Your task to perform on an android device: Go to settings Image 0: 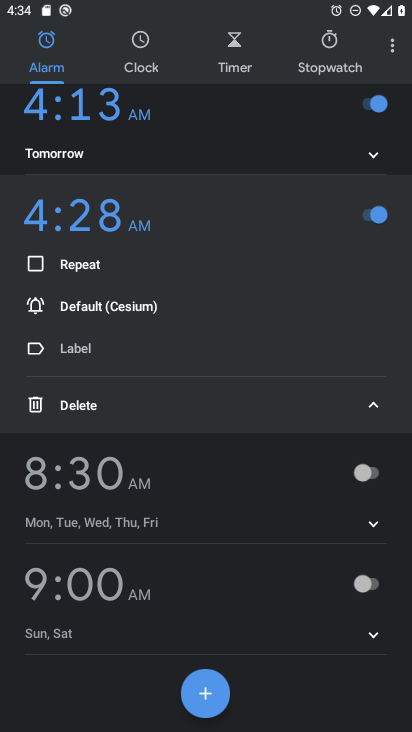
Step 0: press home button
Your task to perform on an android device: Go to settings Image 1: 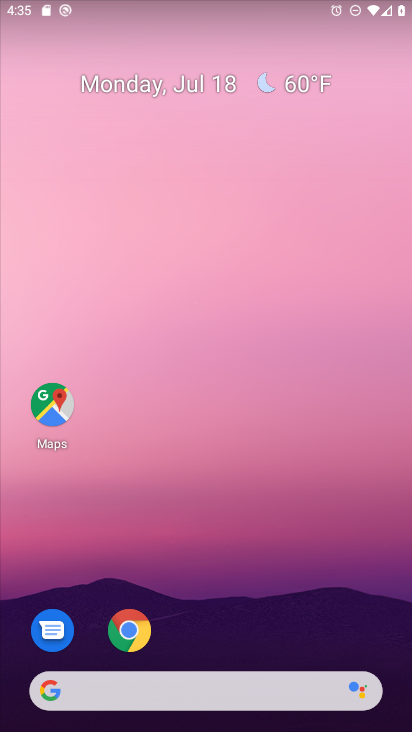
Step 1: drag from (207, 546) to (152, 9)
Your task to perform on an android device: Go to settings Image 2: 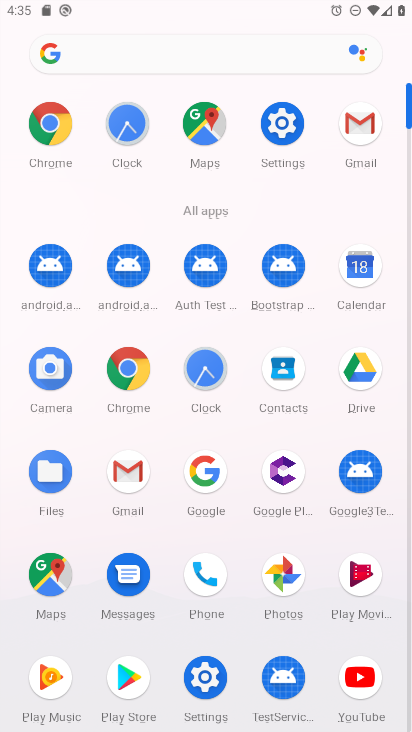
Step 2: click (283, 129)
Your task to perform on an android device: Go to settings Image 3: 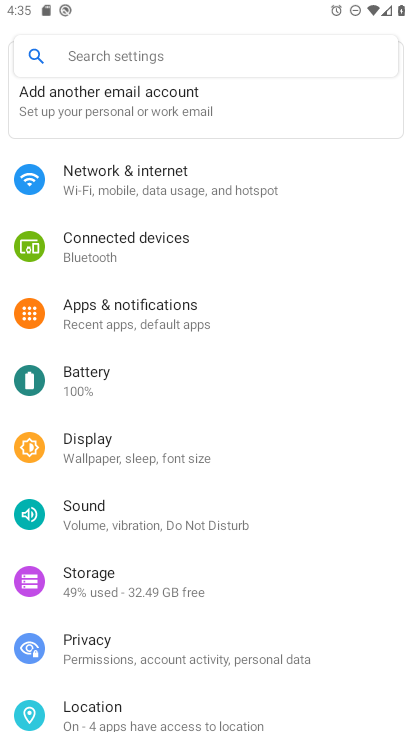
Step 3: task complete